Your task to perform on an android device: see tabs open on other devices in the chrome app Image 0: 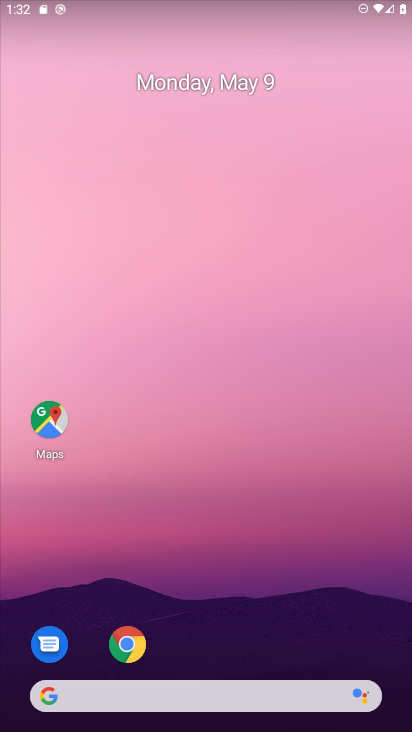
Step 0: click (120, 669)
Your task to perform on an android device: see tabs open on other devices in the chrome app Image 1: 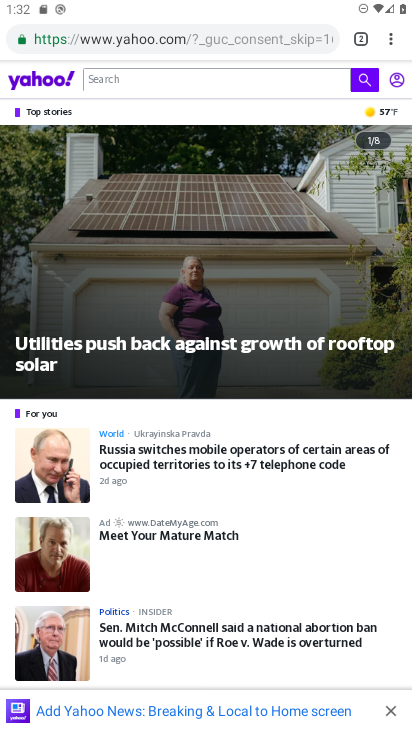
Step 1: click (387, 42)
Your task to perform on an android device: see tabs open on other devices in the chrome app Image 2: 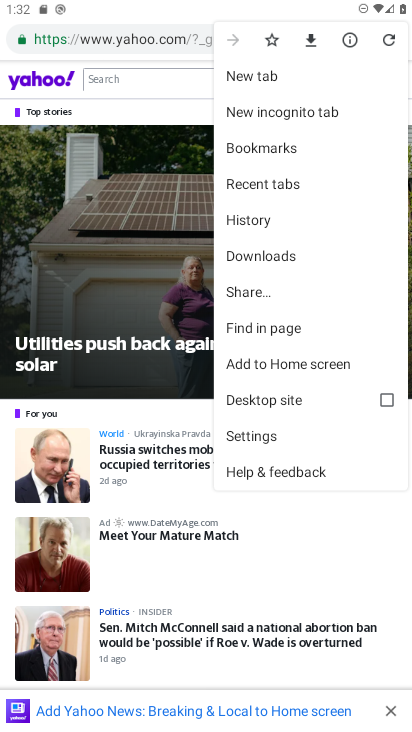
Step 2: click (256, 196)
Your task to perform on an android device: see tabs open on other devices in the chrome app Image 3: 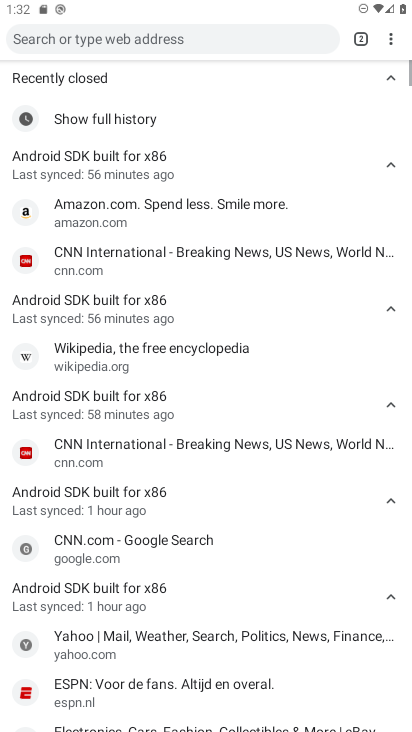
Step 3: task complete